Your task to perform on an android device: Look up the best rated desk lamps on IKEA Image 0: 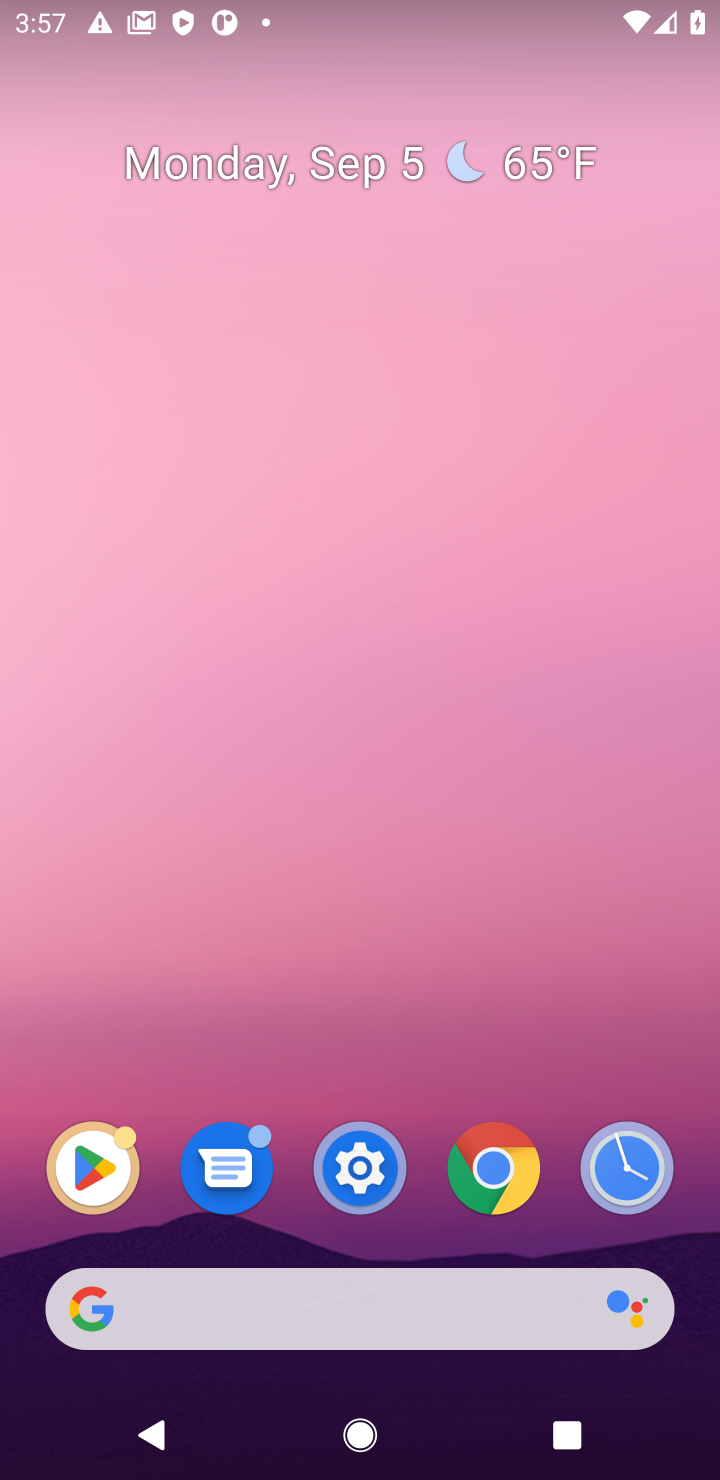
Step 0: task impossible